Your task to perform on an android device: set an alarm Image 0: 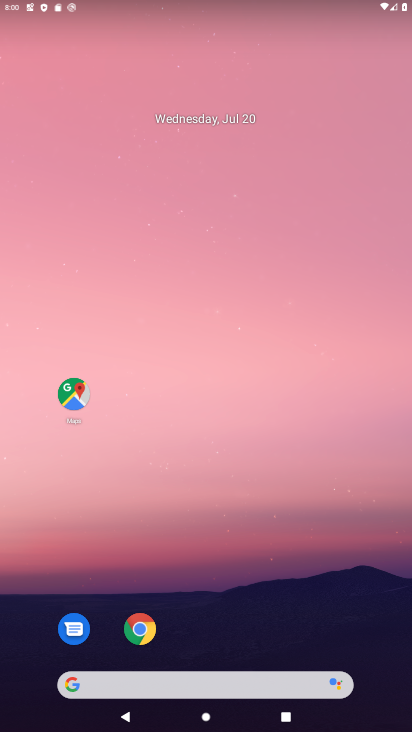
Step 0: drag from (211, 624) to (204, 212)
Your task to perform on an android device: set an alarm Image 1: 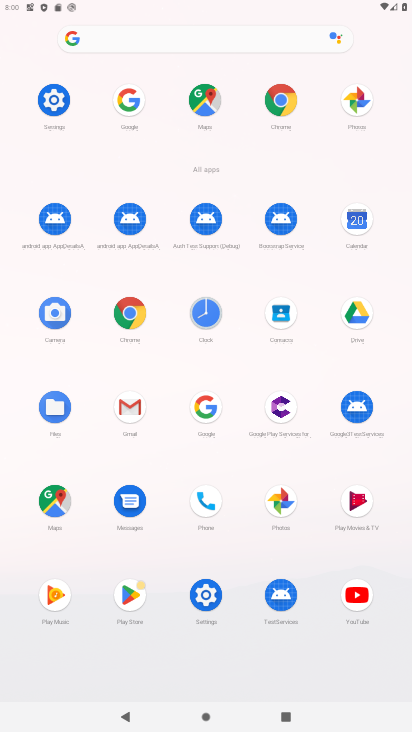
Step 1: click (199, 328)
Your task to perform on an android device: set an alarm Image 2: 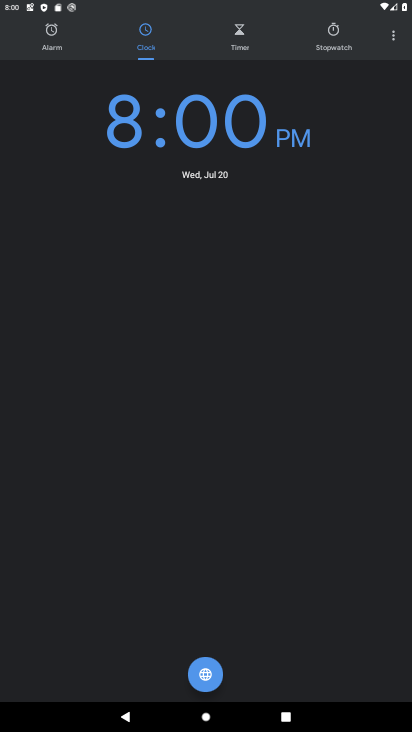
Step 2: click (57, 24)
Your task to perform on an android device: set an alarm Image 3: 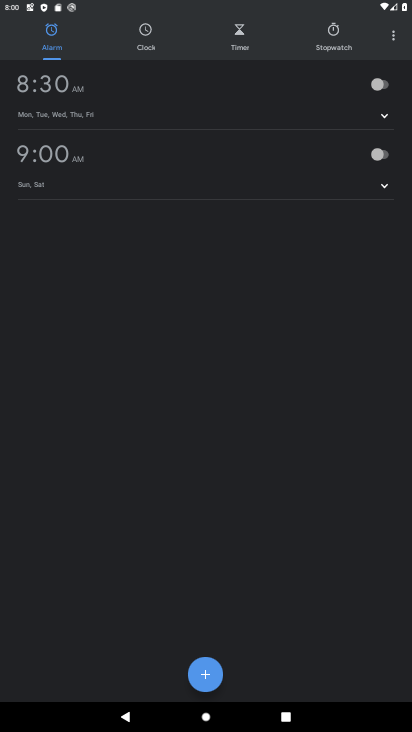
Step 3: click (392, 89)
Your task to perform on an android device: set an alarm Image 4: 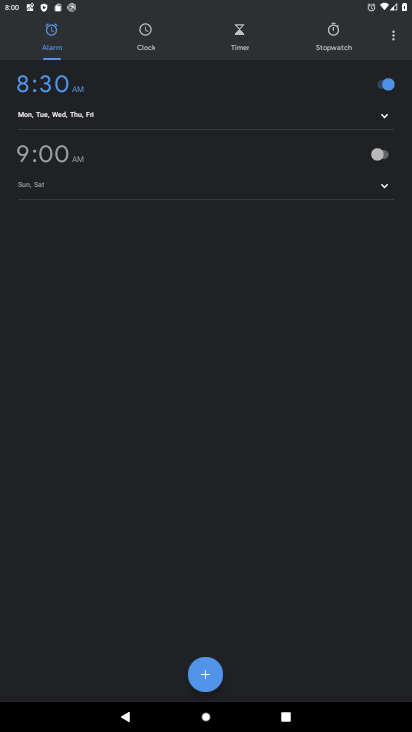
Step 4: task complete